Your task to perform on an android device: Open display settings Image 0: 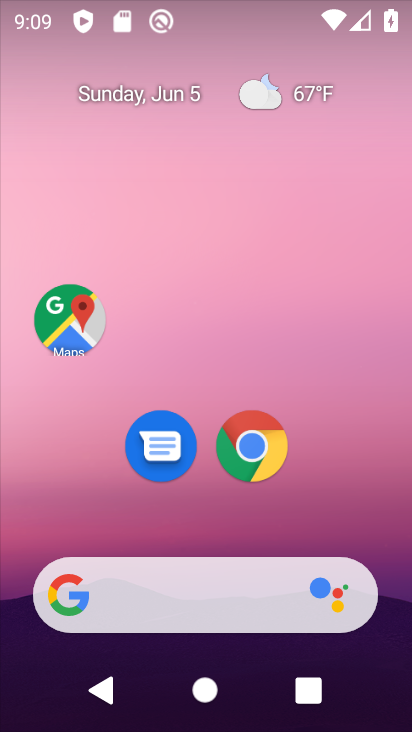
Step 0: drag from (188, 539) to (189, 169)
Your task to perform on an android device: Open display settings Image 1: 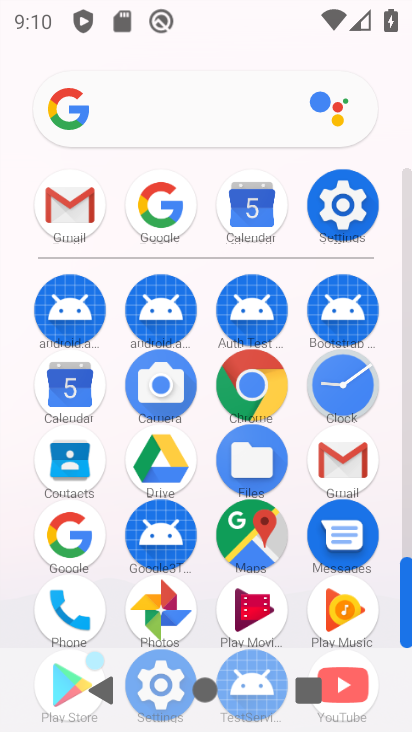
Step 1: click (359, 222)
Your task to perform on an android device: Open display settings Image 2: 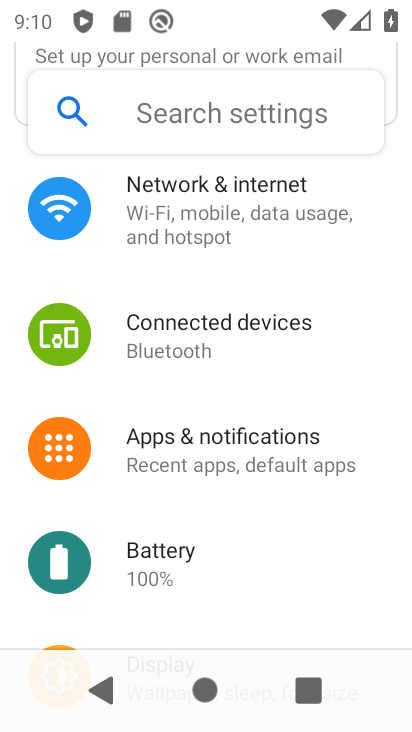
Step 2: drag from (205, 573) to (228, 266)
Your task to perform on an android device: Open display settings Image 3: 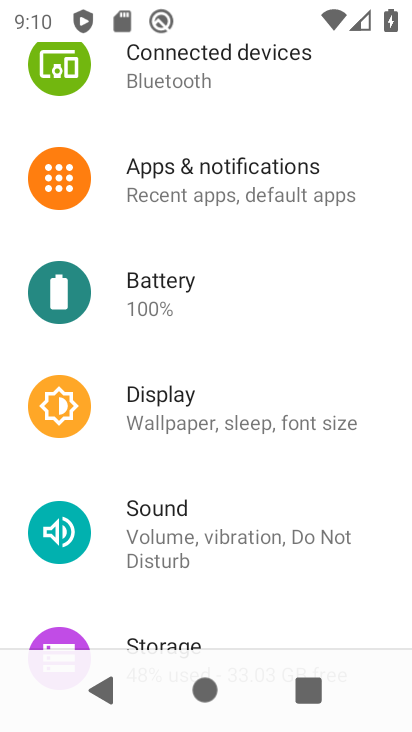
Step 3: click (195, 396)
Your task to perform on an android device: Open display settings Image 4: 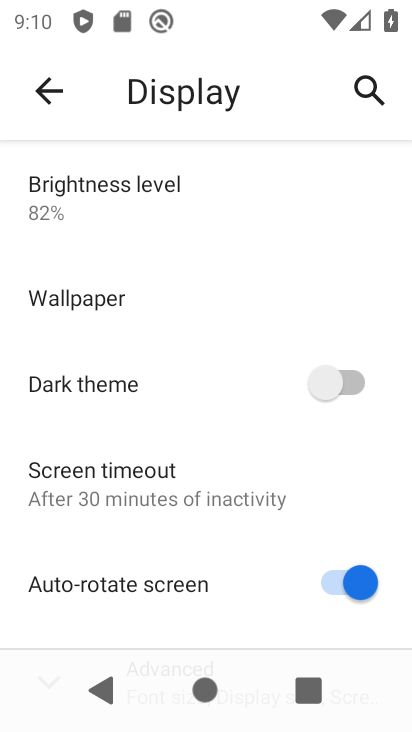
Step 4: task complete